Your task to perform on an android device: delete location history Image 0: 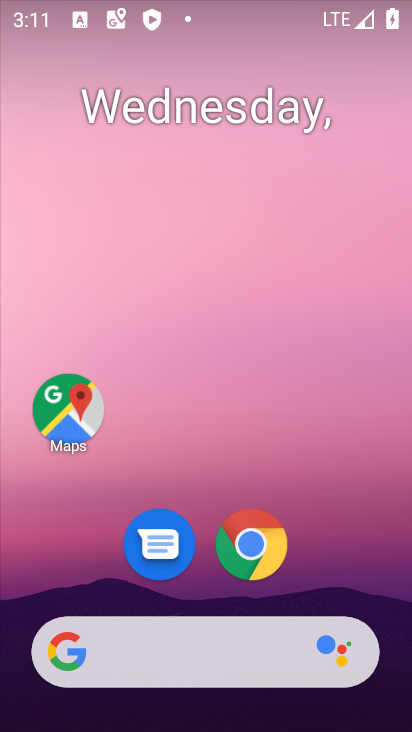
Step 0: click (69, 408)
Your task to perform on an android device: delete location history Image 1: 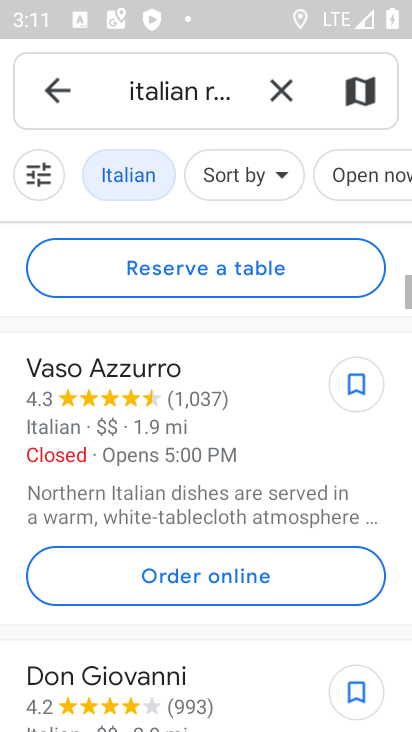
Step 1: click (279, 90)
Your task to perform on an android device: delete location history Image 2: 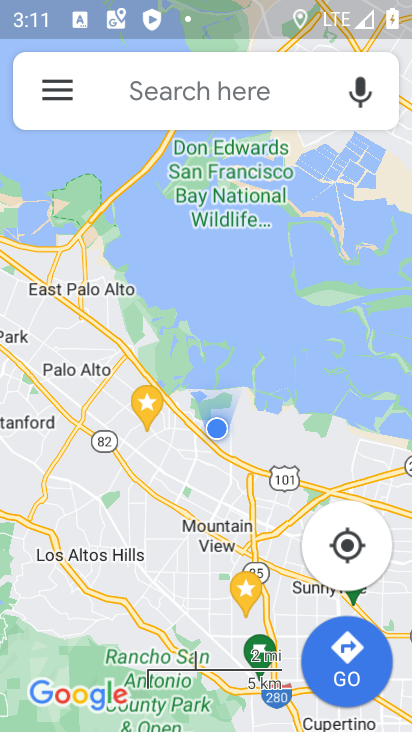
Step 2: click (55, 91)
Your task to perform on an android device: delete location history Image 3: 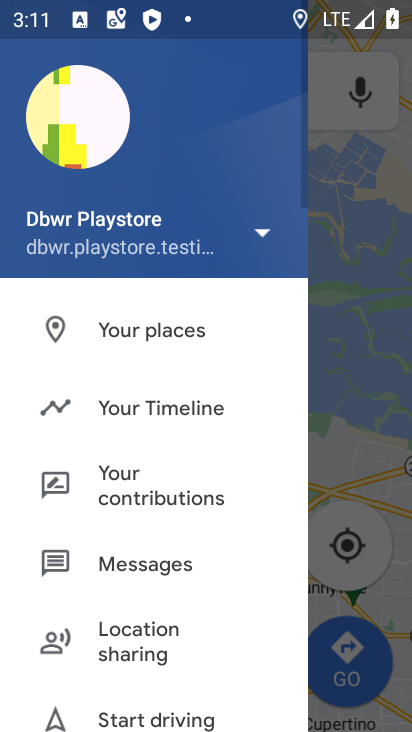
Step 3: drag from (212, 659) to (251, 151)
Your task to perform on an android device: delete location history Image 4: 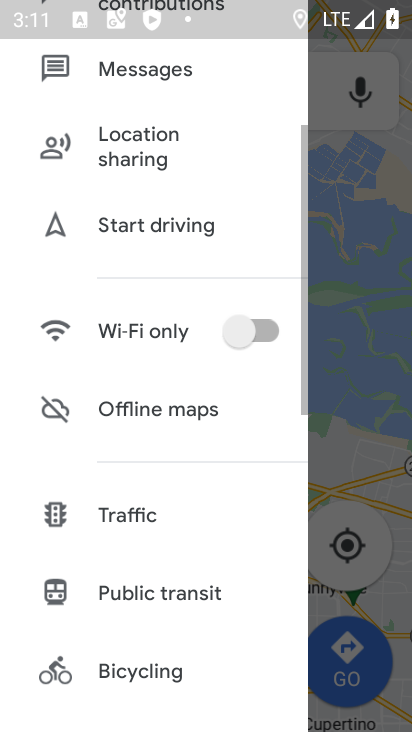
Step 4: drag from (228, 574) to (234, 222)
Your task to perform on an android device: delete location history Image 5: 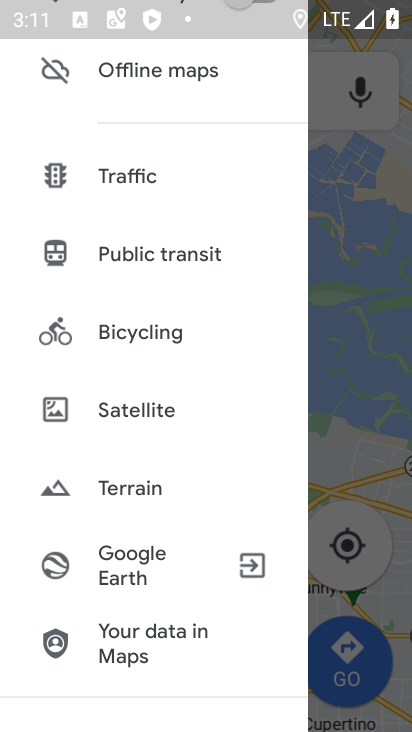
Step 5: drag from (211, 638) to (218, 217)
Your task to perform on an android device: delete location history Image 6: 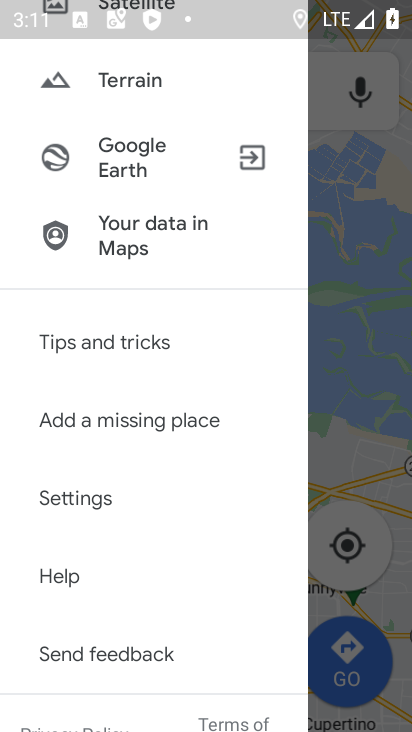
Step 6: click (69, 494)
Your task to perform on an android device: delete location history Image 7: 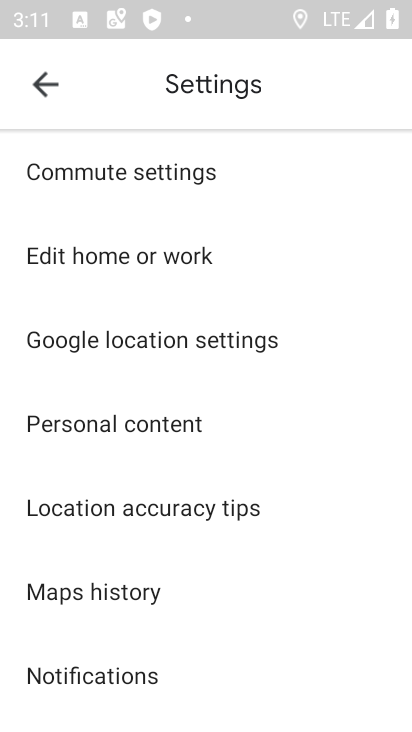
Step 7: click (73, 414)
Your task to perform on an android device: delete location history Image 8: 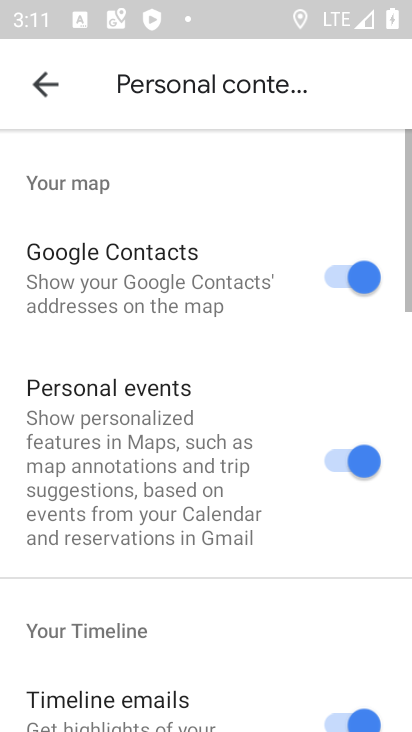
Step 8: drag from (264, 647) to (277, 90)
Your task to perform on an android device: delete location history Image 9: 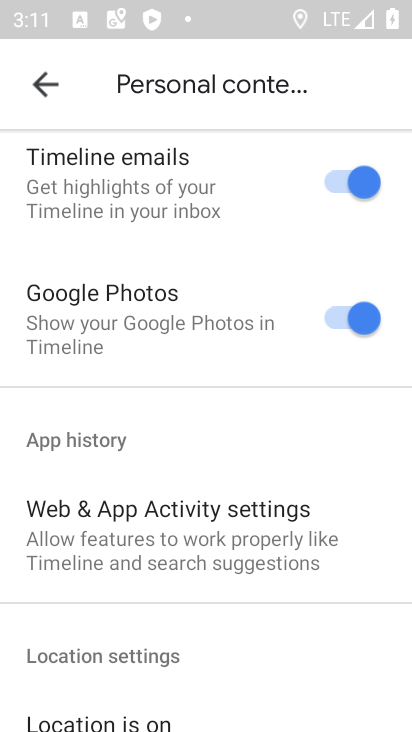
Step 9: drag from (293, 599) to (283, 156)
Your task to perform on an android device: delete location history Image 10: 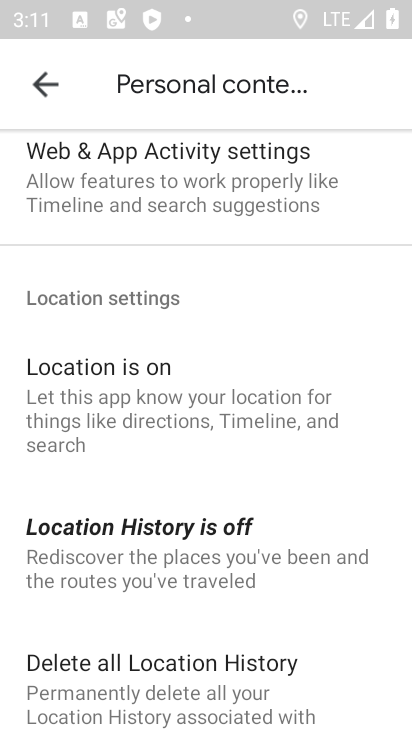
Step 10: click (101, 669)
Your task to perform on an android device: delete location history Image 11: 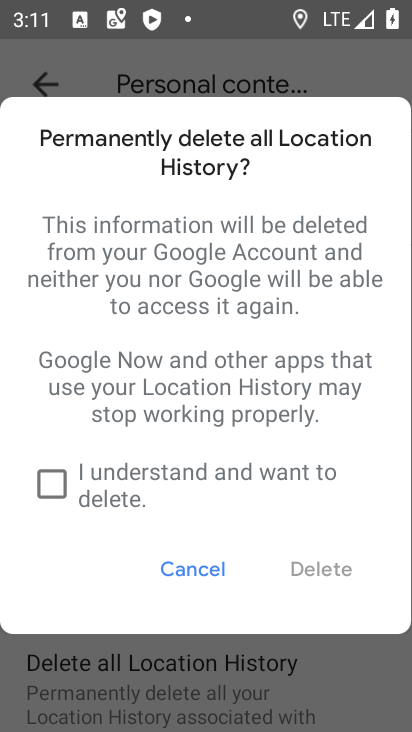
Step 11: click (48, 488)
Your task to perform on an android device: delete location history Image 12: 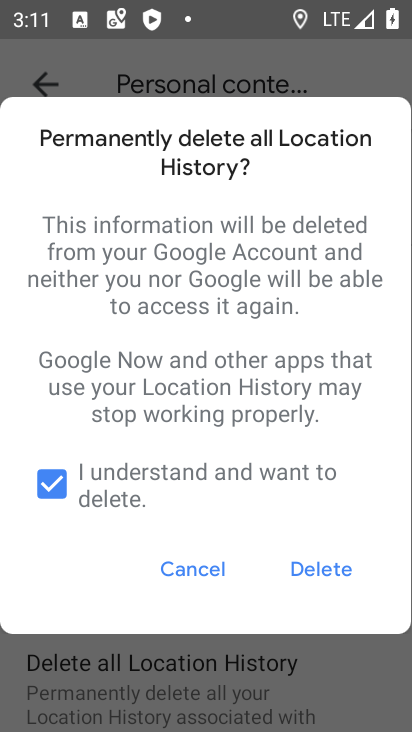
Step 12: click (327, 571)
Your task to perform on an android device: delete location history Image 13: 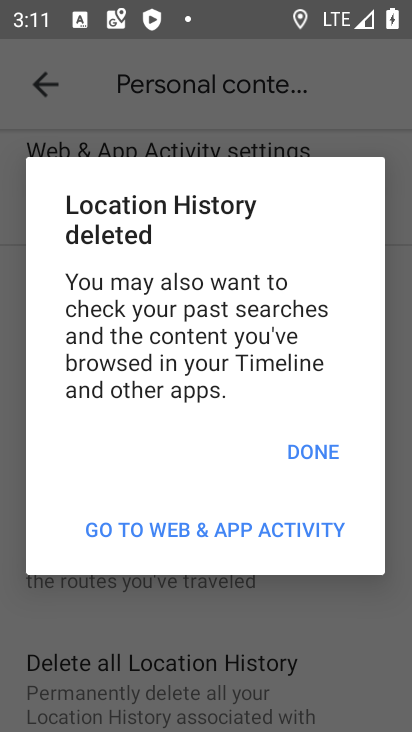
Step 13: click (307, 445)
Your task to perform on an android device: delete location history Image 14: 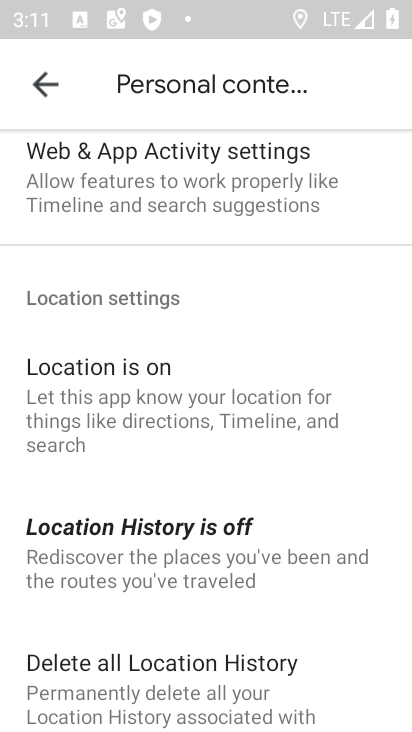
Step 14: task complete